Your task to perform on an android device: Show me the alarms in the clock app Image 0: 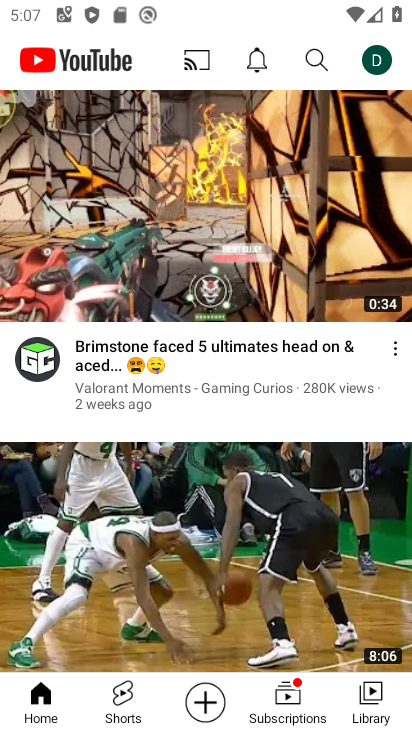
Step 0: press home button
Your task to perform on an android device: Show me the alarms in the clock app Image 1: 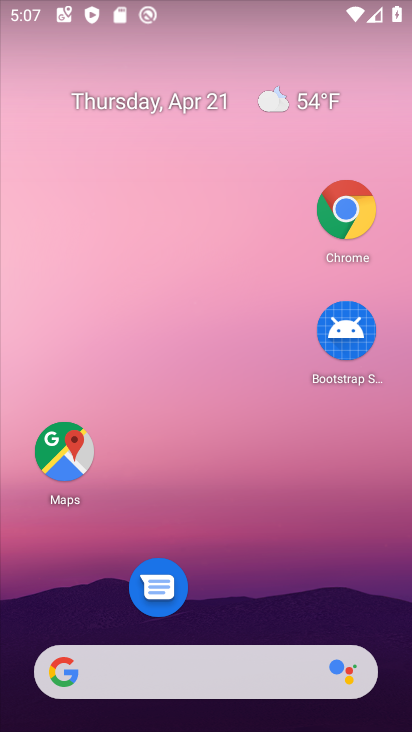
Step 1: drag from (257, 601) to (240, 168)
Your task to perform on an android device: Show me the alarms in the clock app Image 2: 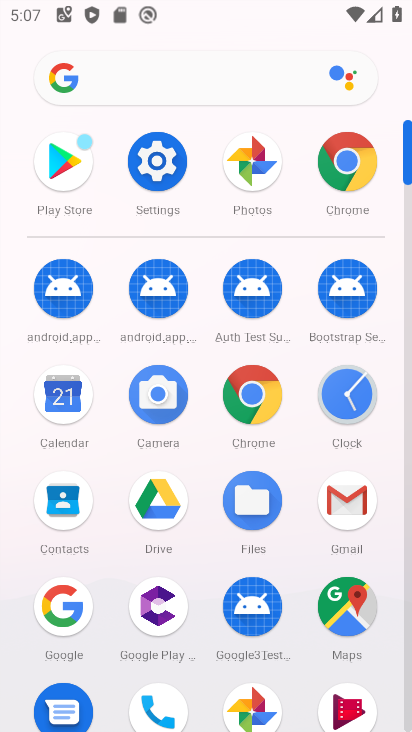
Step 2: click (352, 394)
Your task to perform on an android device: Show me the alarms in the clock app Image 3: 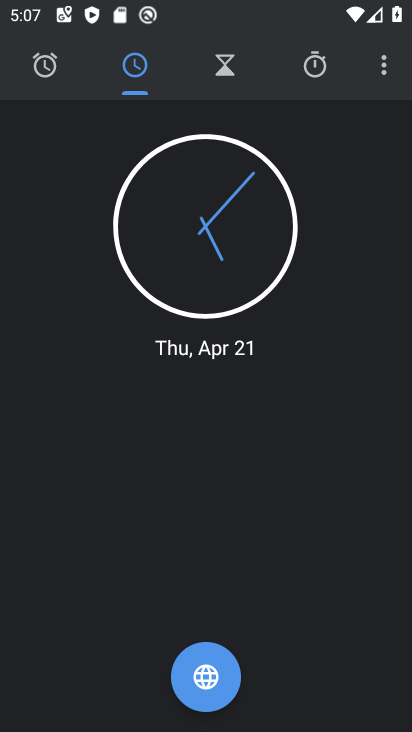
Step 3: click (36, 63)
Your task to perform on an android device: Show me the alarms in the clock app Image 4: 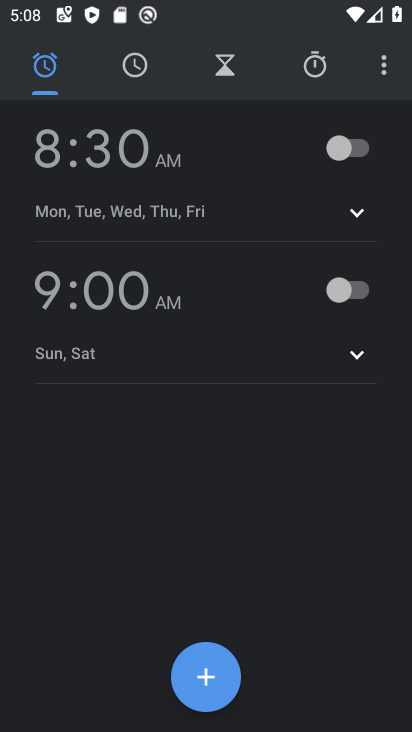
Step 4: task complete